Your task to perform on an android device: turn on improve location accuracy Image 0: 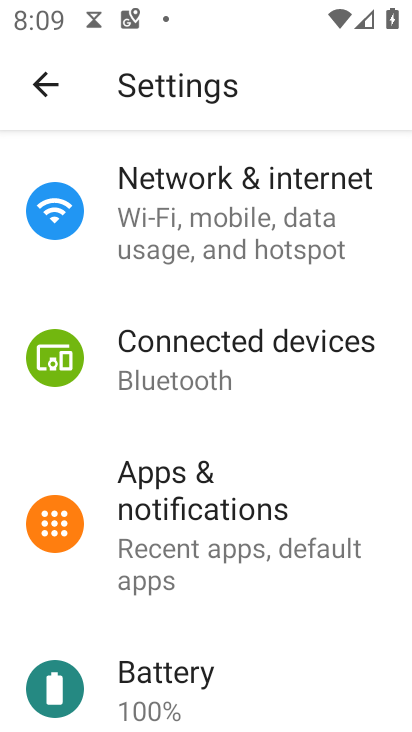
Step 0: drag from (262, 626) to (256, 179)
Your task to perform on an android device: turn on improve location accuracy Image 1: 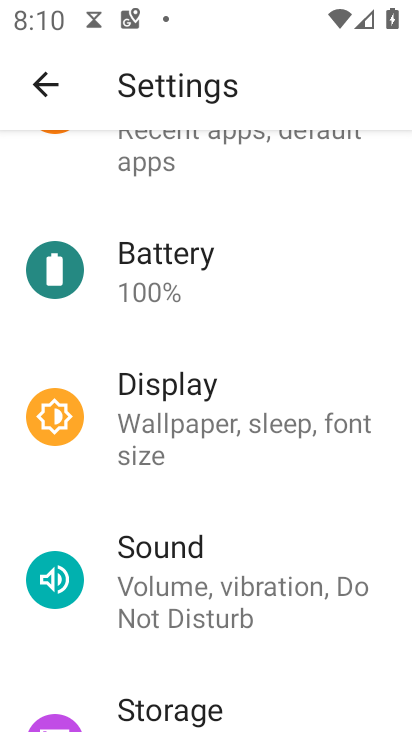
Step 1: drag from (255, 608) to (287, 198)
Your task to perform on an android device: turn on improve location accuracy Image 2: 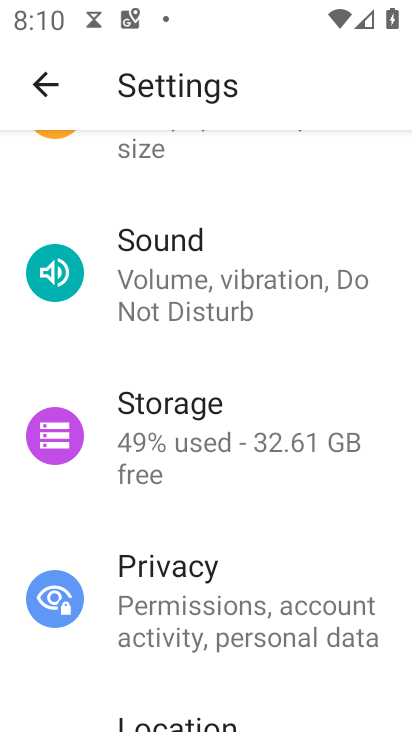
Step 2: drag from (236, 627) to (249, 231)
Your task to perform on an android device: turn on improve location accuracy Image 3: 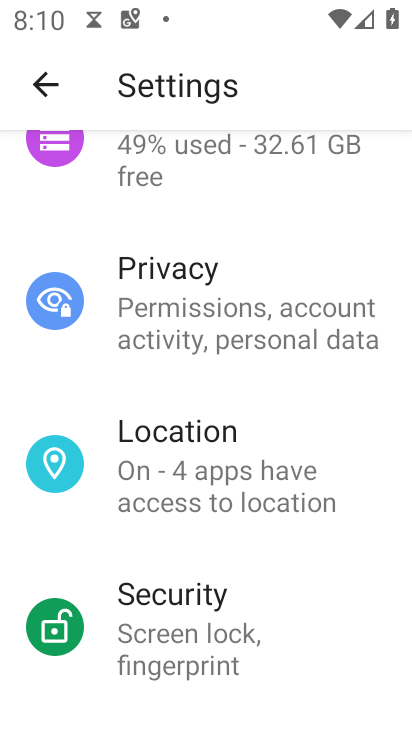
Step 3: click (222, 440)
Your task to perform on an android device: turn on improve location accuracy Image 4: 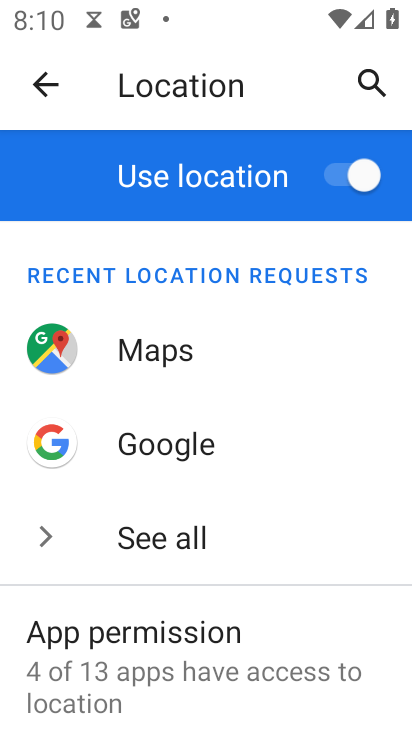
Step 4: drag from (245, 649) to (271, 219)
Your task to perform on an android device: turn on improve location accuracy Image 5: 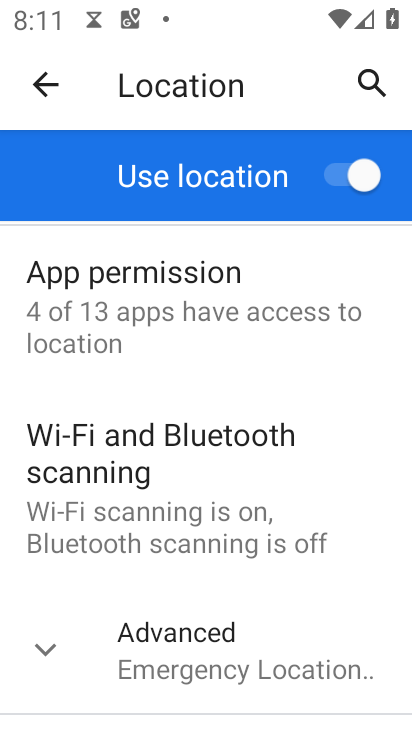
Step 5: drag from (239, 650) to (223, 284)
Your task to perform on an android device: turn on improve location accuracy Image 6: 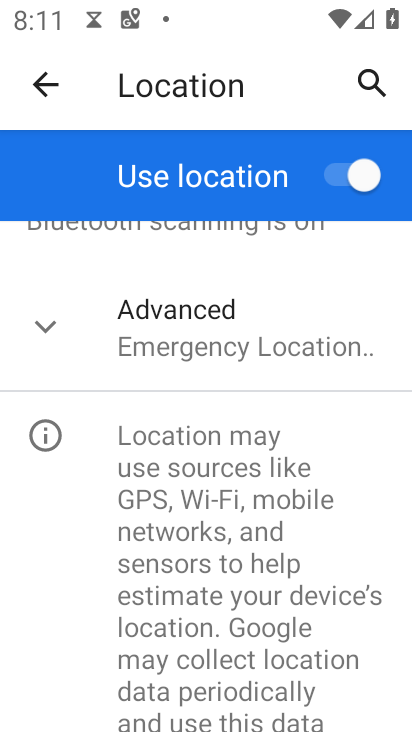
Step 6: click (193, 333)
Your task to perform on an android device: turn on improve location accuracy Image 7: 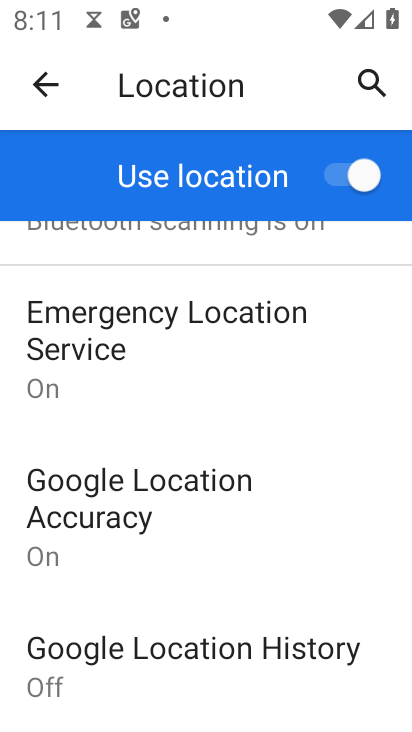
Step 7: click (165, 375)
Your task to perform on an android device: turn on improve location accuracy Image 8: 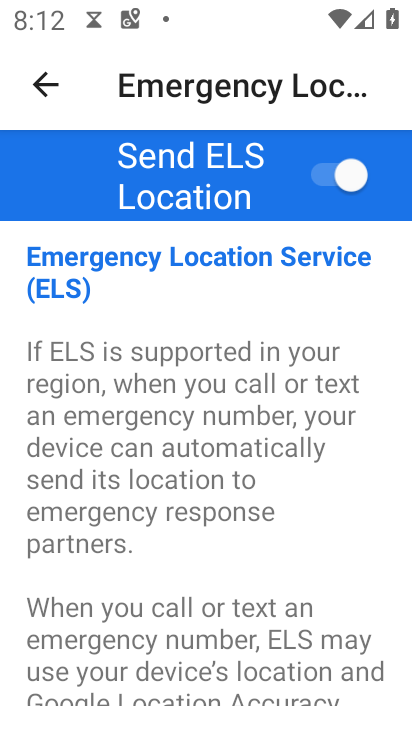
Step 8: drag from (249, 618) to (344, 654)
Your task to perform on an android device: turn on improve location accuracy Image 9: 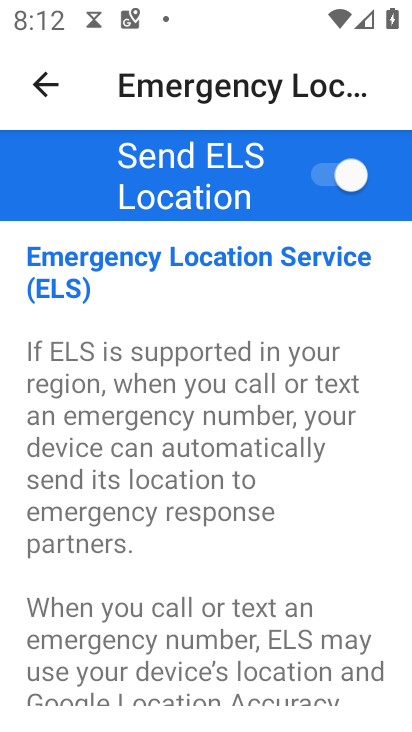
Step 9: click (53, 72)
Your task to perform on an android device: turn on improve location accuracy Image 10: 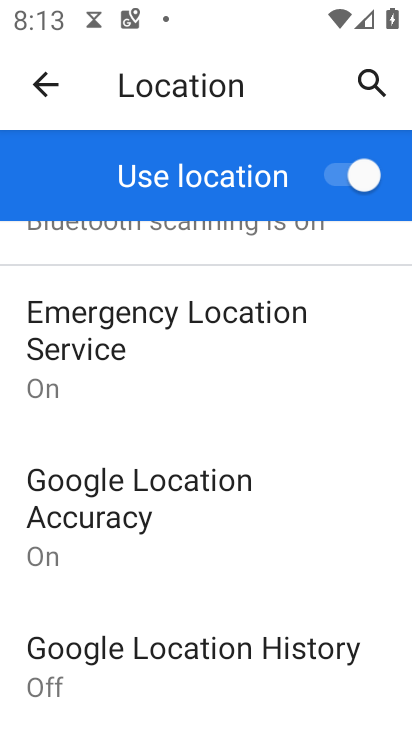
Step 10: click (135, 516)
Your task to perform on an android device: turn on improve location accuracy Image 11: 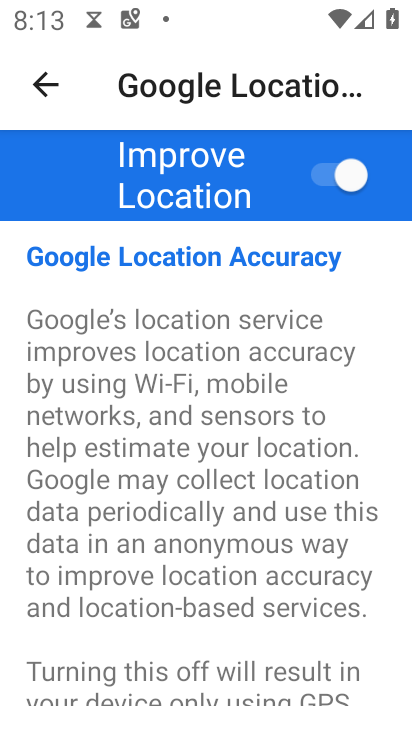
Step 11: task complete